Your task to perform on an android device: change the upload size in google photos Image 0: 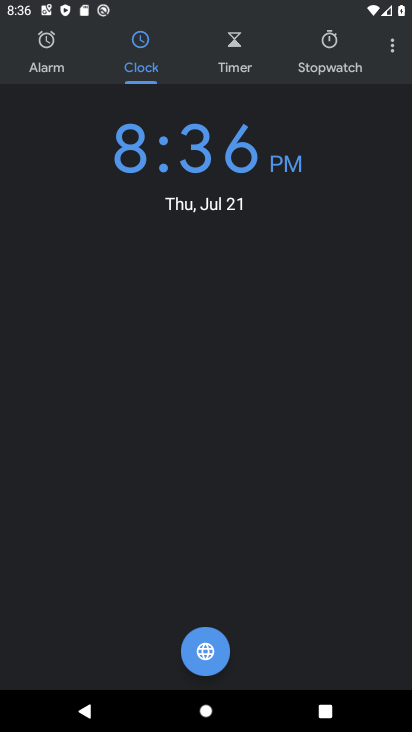
Step 0: press home button
Your task to perform on an android device: change the upload size in google photos Image 1: 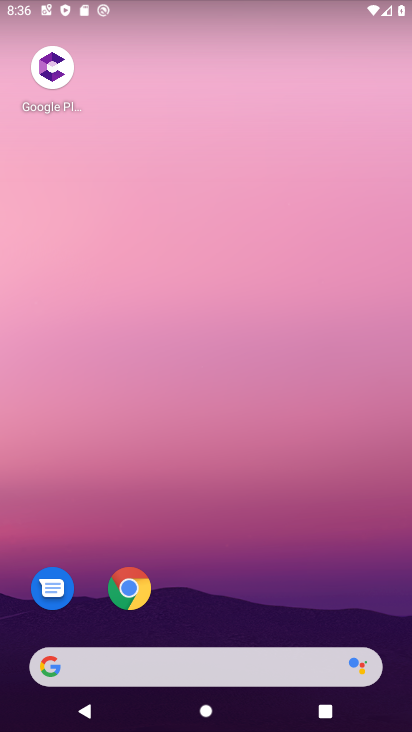
Step 1: drag from (313, 510) to (293, 19)
Your task to perform on an android device: change the upload size in google photos Image 2: 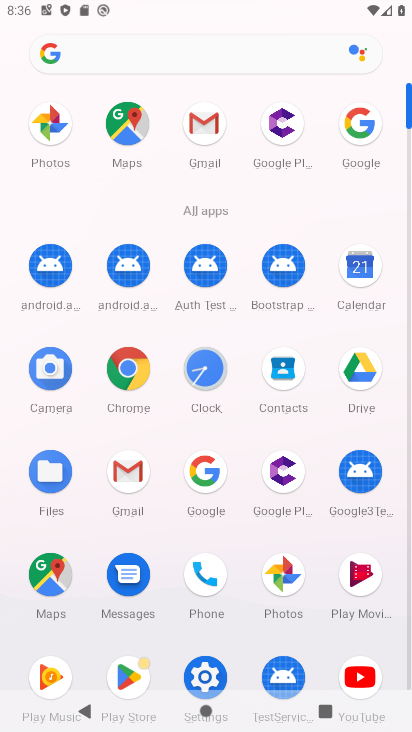
Step 2: click (297, 566)
Your task to perform on an android device: change the upload size in google photos Image 3: 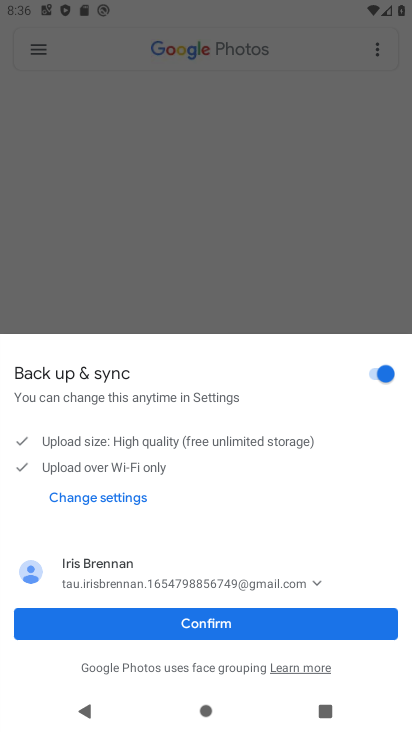
Step 3: click (124, 636)
Your task to perform on an android device: change the upload size in google photos Image 4: 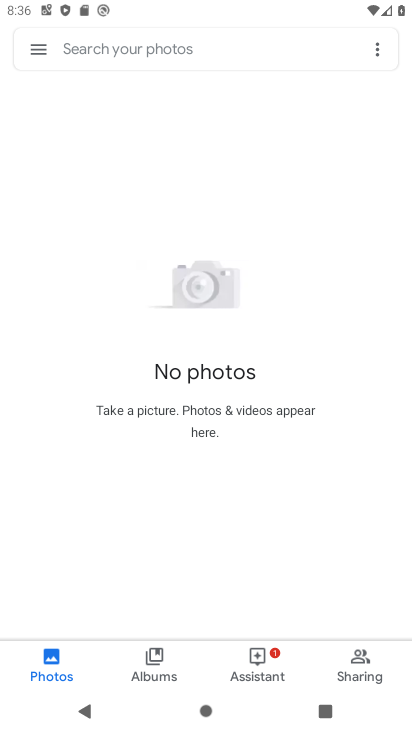
Step 4: click (34, 55)
Your task to perform on an android device: change the upload size in google photos Image 5: 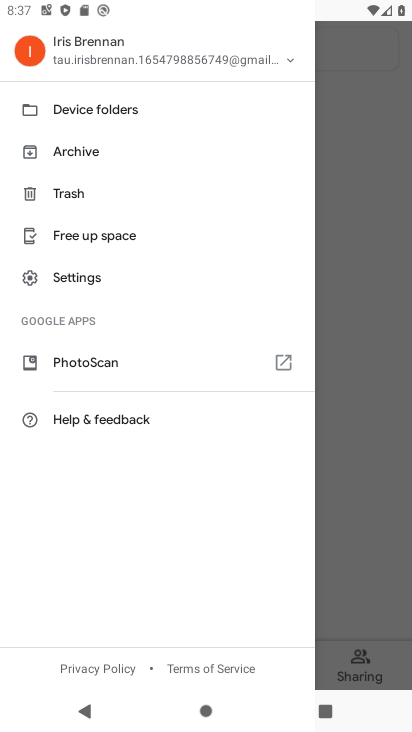
Step 5: click (118, 281)
Your task to perform on an android device: change the upload size in google photos Image 6: 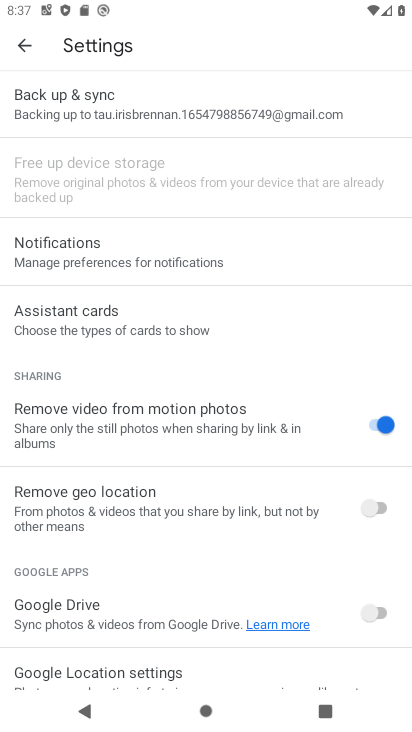
Step 6: click (161, 92)
Your task to perform on an android device: change the upload size in google photos Image 7: 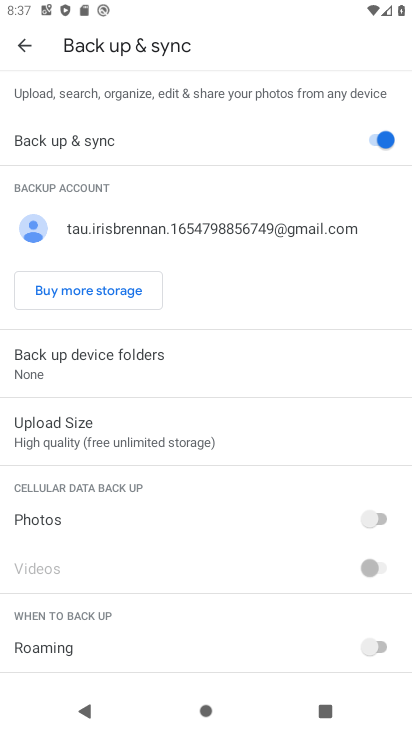
Step 7: click (177, 446)
Your task to perform on an android device: change the upload size in google photos Image 8: 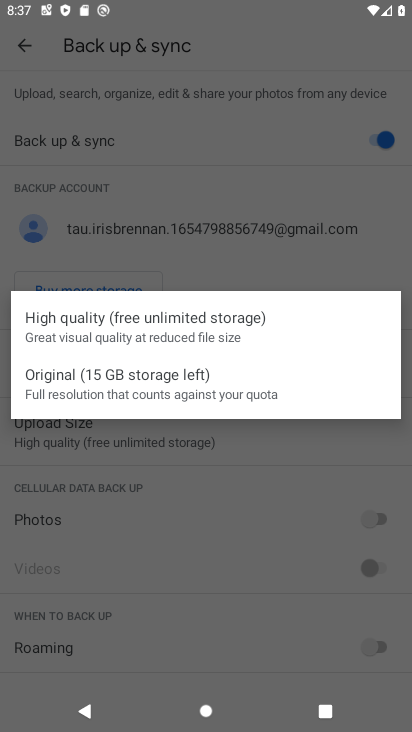
Step 8: click (190, 382)
Your task to perform on an android device: change the upload size in google photos Image 9: 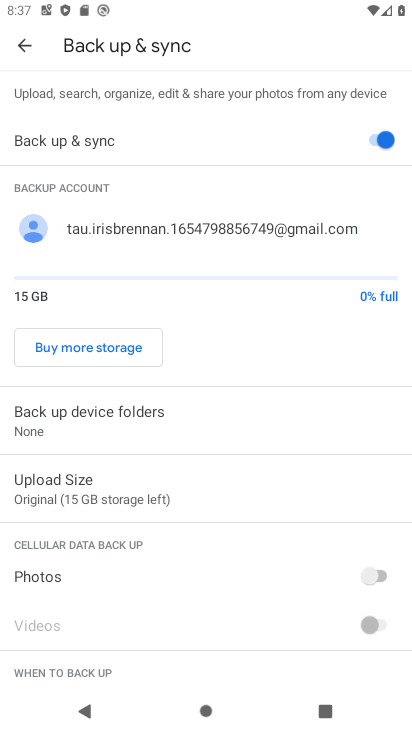
Step 9: task complete